Your task to perform on an android device: turn off smart reply in the gmail app Image 0: 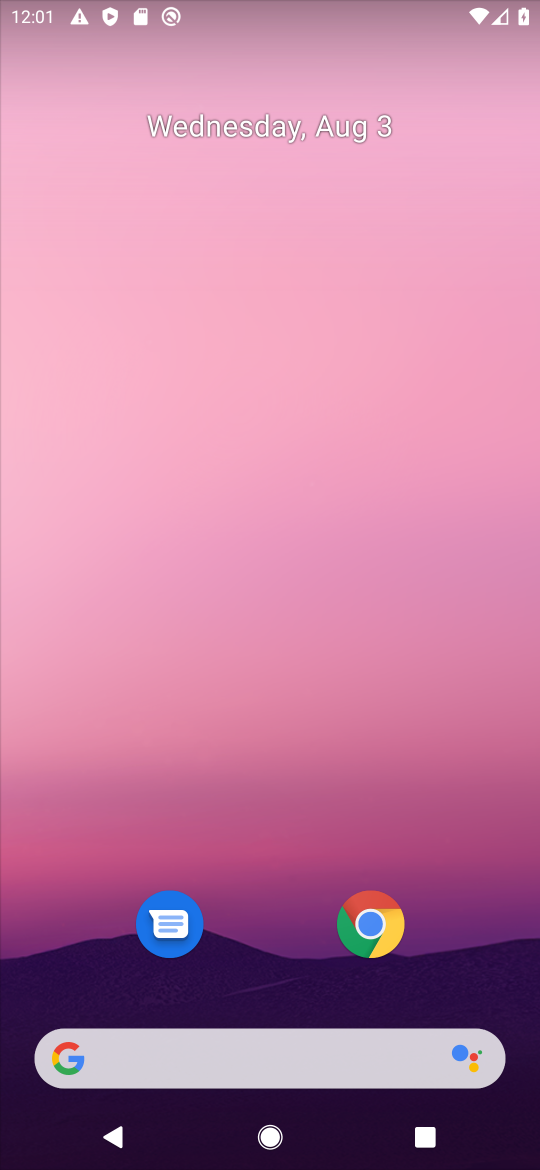
Step 0: drag from (224, 965) to (341, 104)
Your task to perform on an android device: turn off smart reply in the gmail app Image 1: 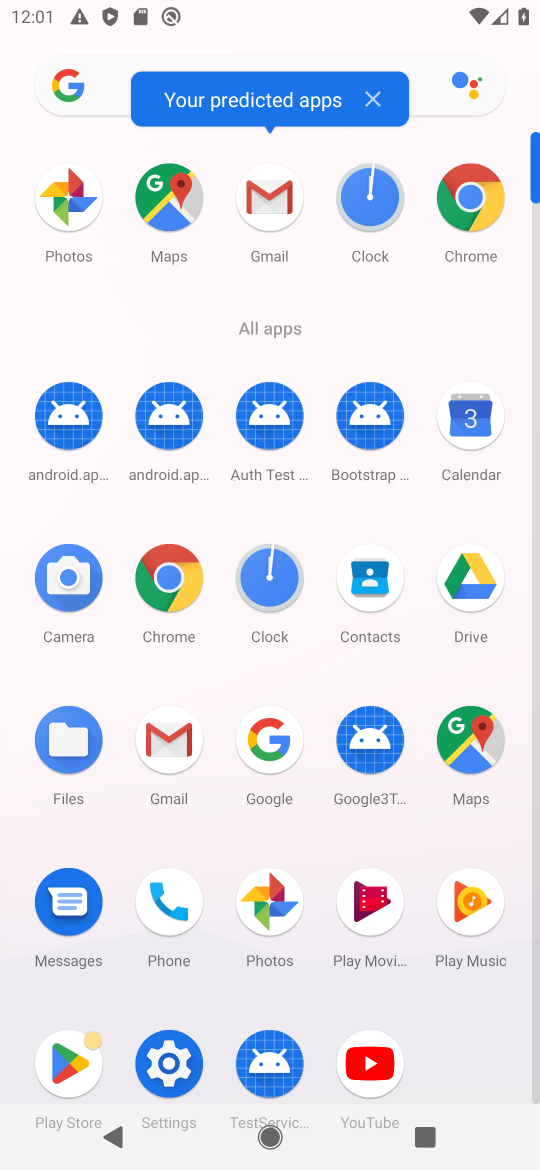
Step 1: click (283, 188)
Your task to perform on an android device: turn off smart reply in the gmail app Image 2: 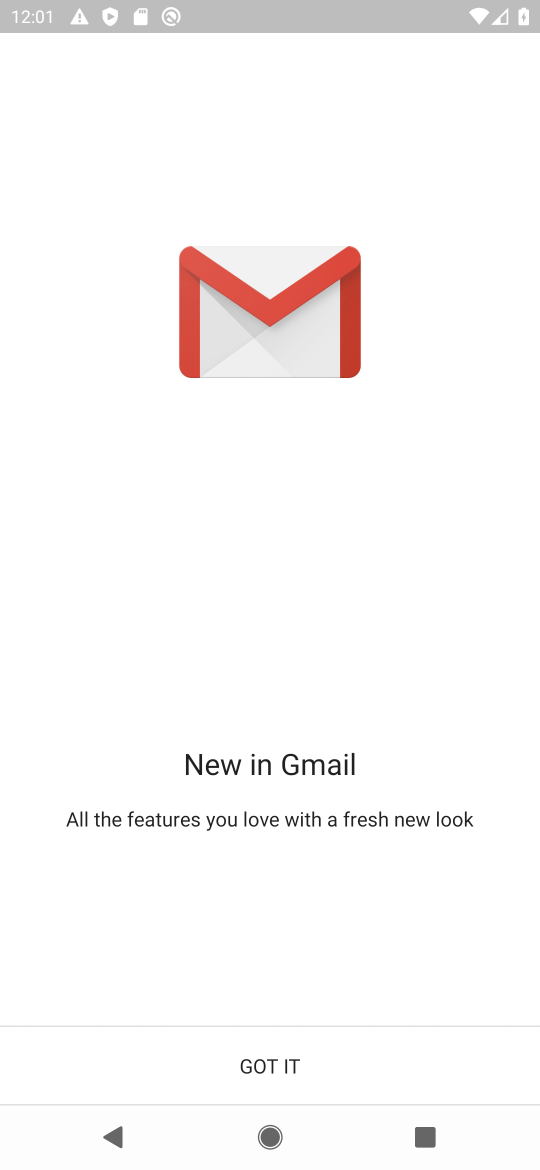
Step 2: click (273, 1038)
Your task to perform on an android device: turn off smart reply in the gmail app Image 3: 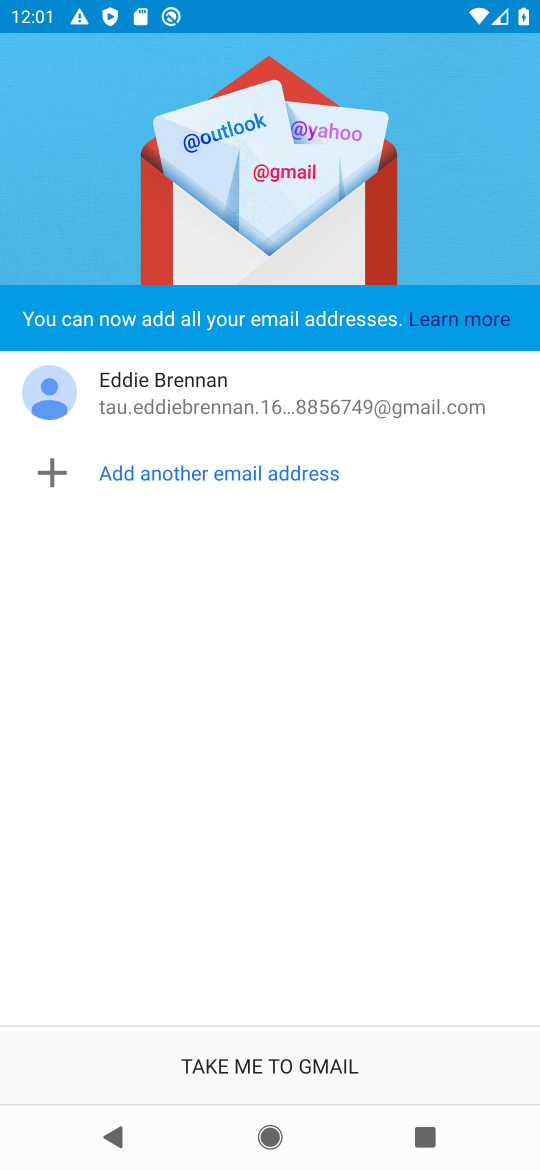
Step 3: click (254, 1073)
Your task to perform on an android device: turn off smart reply in the gmail app Image 4: 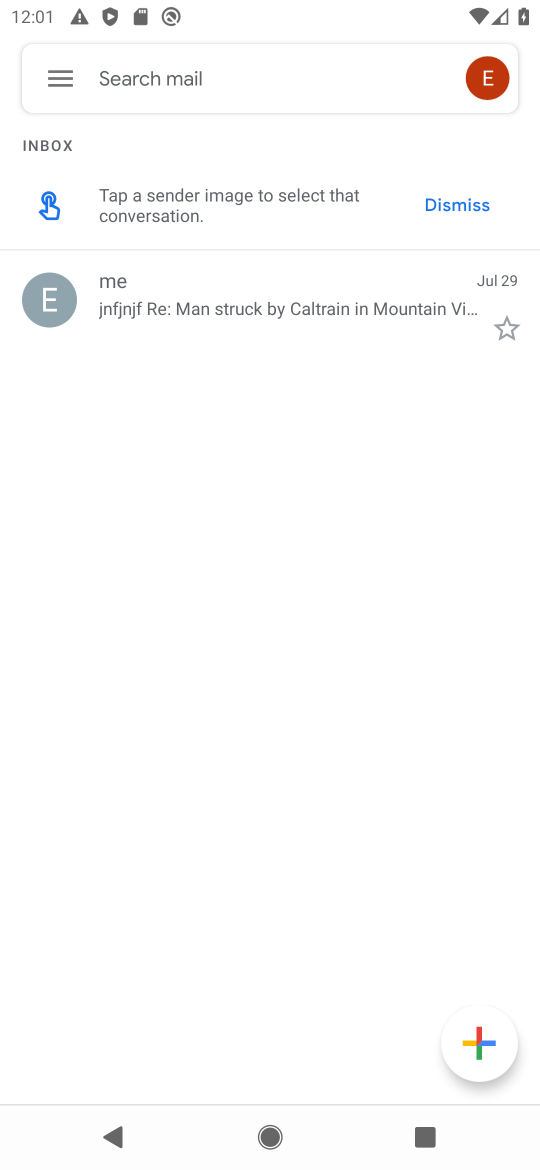
Step 4: click (57, 93)
Your task to perform on an android device: turn off smart reply in the gmail app Image 5: 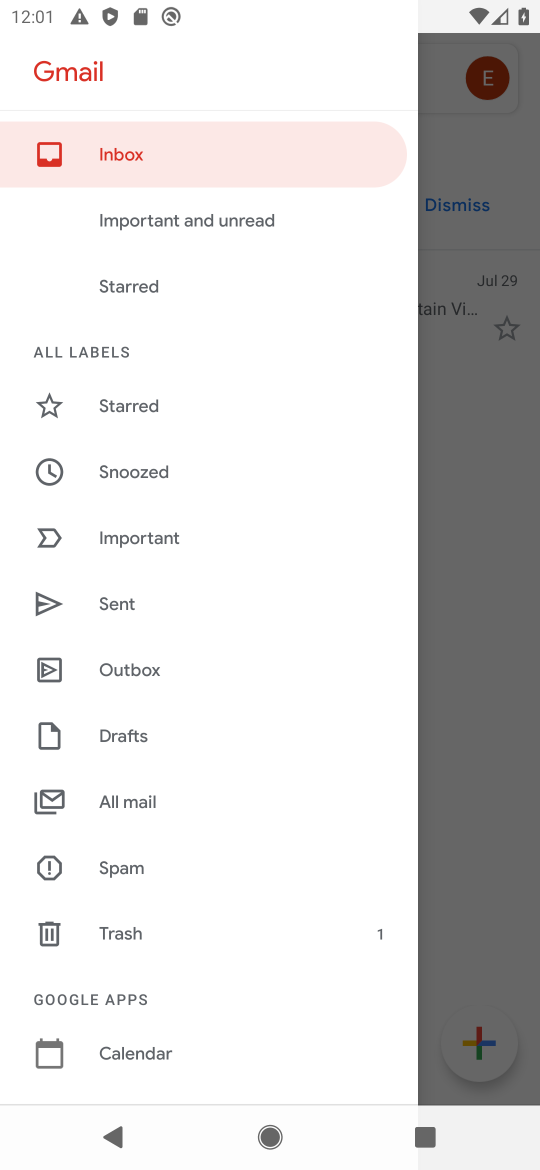
Step 5: drag from (192, 937) to (282, 149)
Your task to perform on an android device: turn off smart reply in the gmail app Image 6: 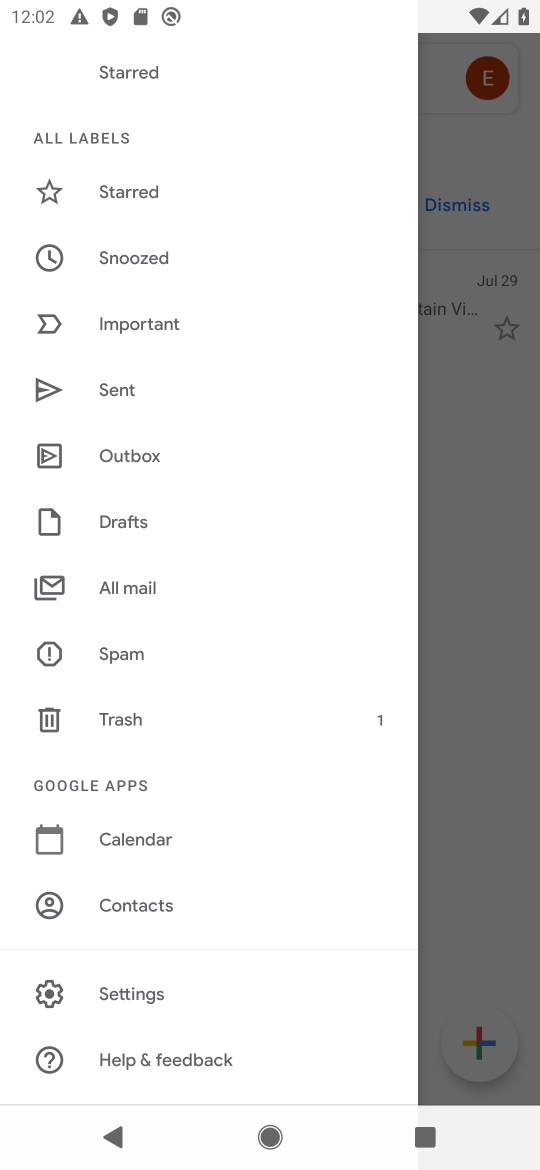
Step 6: click (173, 983)
Your task to perform on an android device: turn off smart reply in the gmail app Image 7: 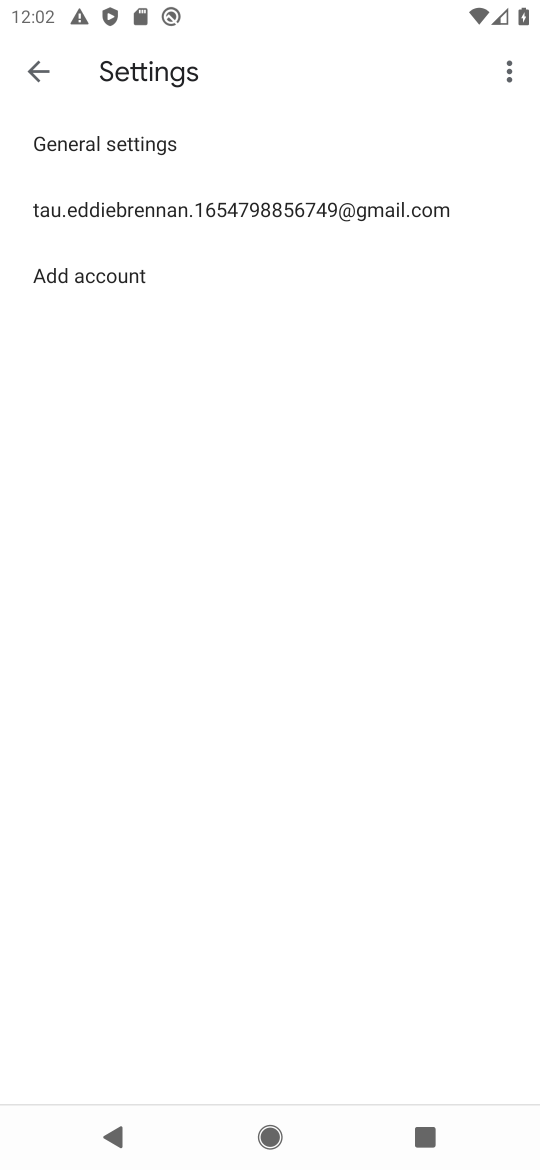
Step 7: click (30, 71)
Your task to perform on an android device: turn off smart reply in the gmail app Image 8: 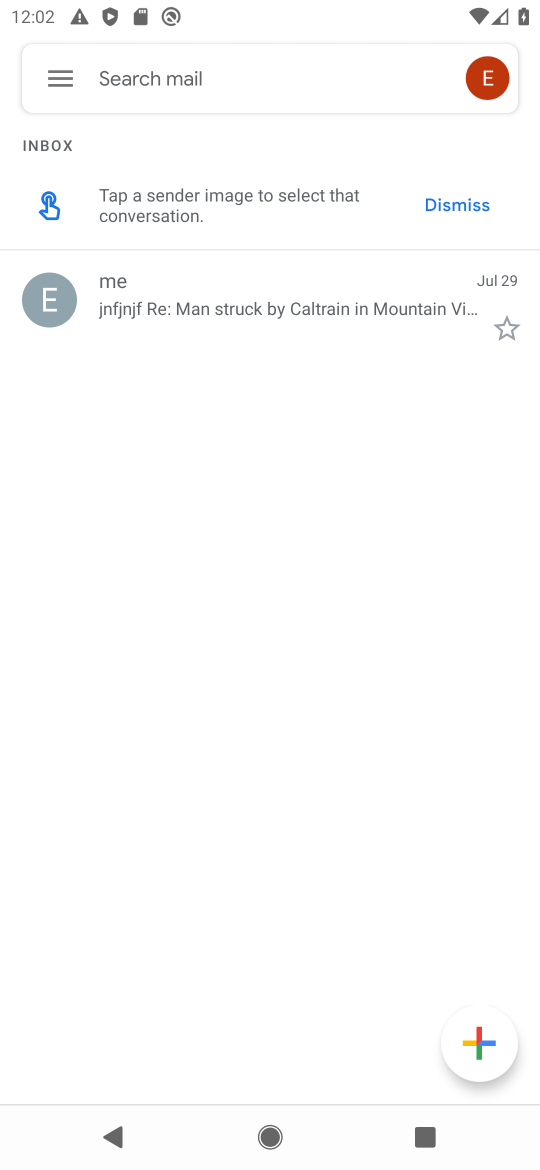
Step 8: click (56, 82)
Your task to perform on an android device: turn off smart reply in the gmail app Image 9: 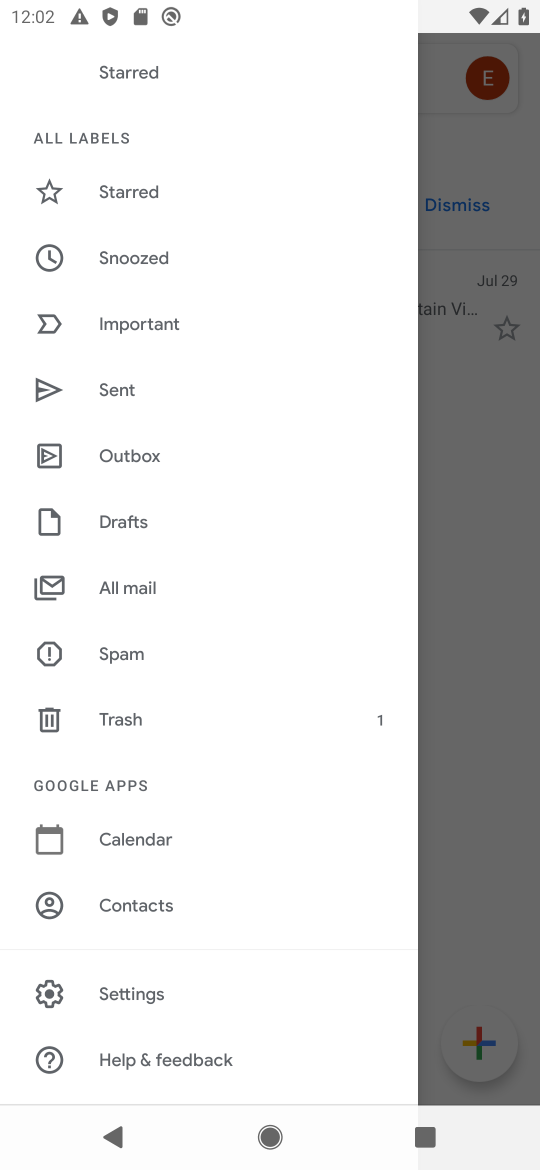
Step 9: click (154, 996)
Your task to perform on an android device: turn off smart reply in the gmail app Image 10: 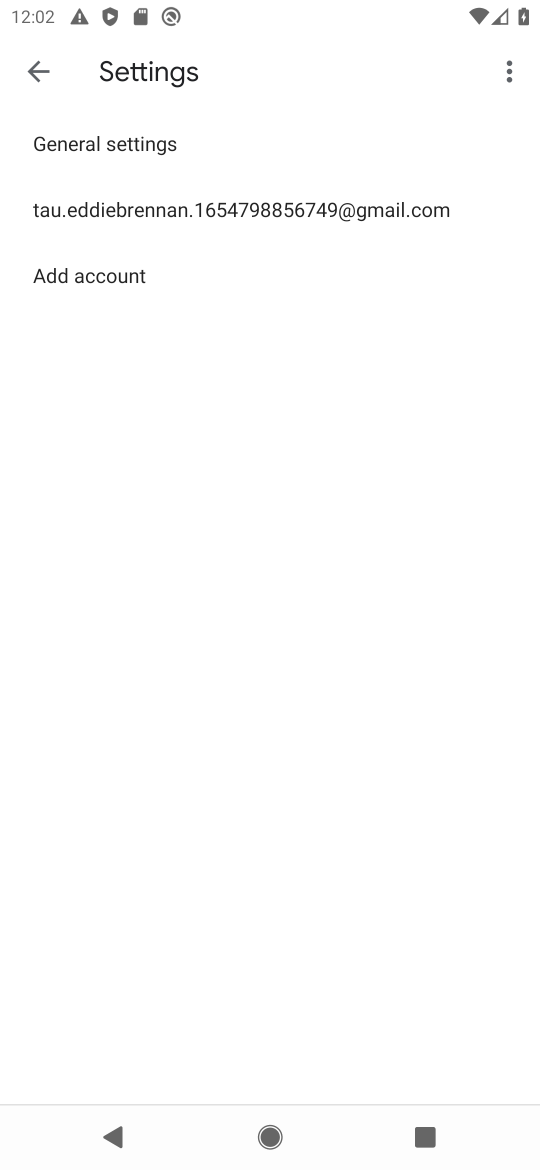
Step 10: click (180, 203)
Your task to perform on an android device: turn off smart reply in the gmail app Image 11: 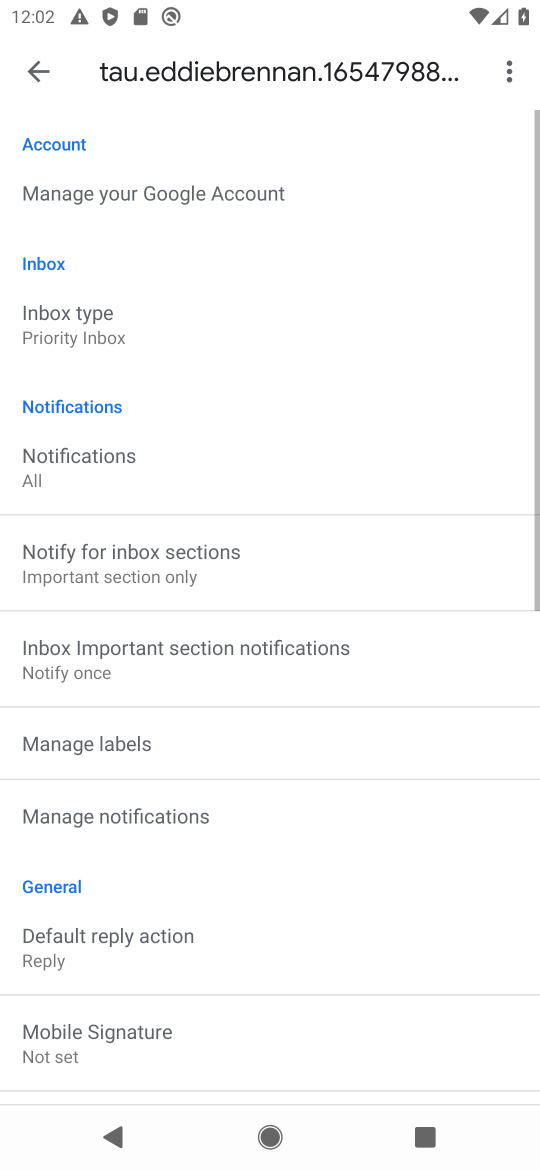
Step 11: drag from (113, 977) to (263, 122)
Your task to perform on an android device: turn off smart reply in the gmail app Image 12: 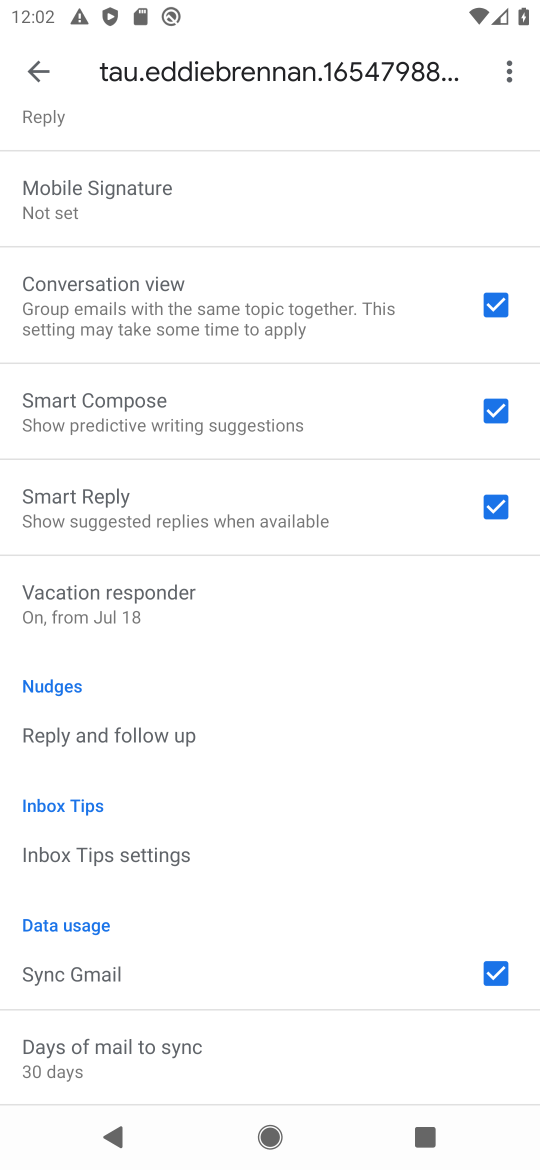
Step 12: click (501, 512)
Your task to perform on an android device: turn off smart reply in the gmail app Image 13: 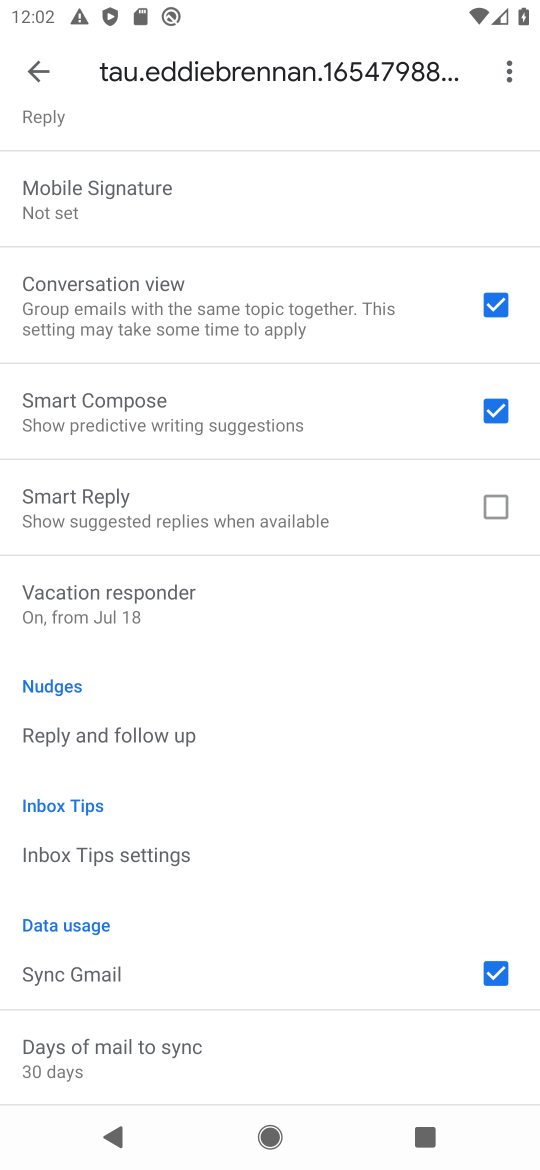
Step 13: task complete